Your task to perform on an android device: Open Google Image 0: 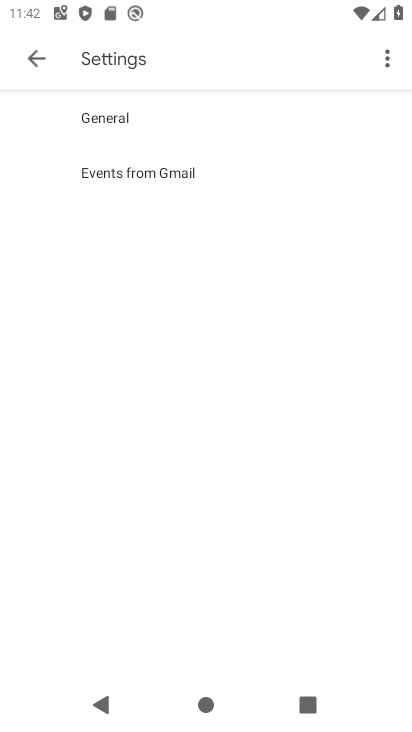
Step 0: press home button
Your task to perform on an android device: Open Google Image 1: 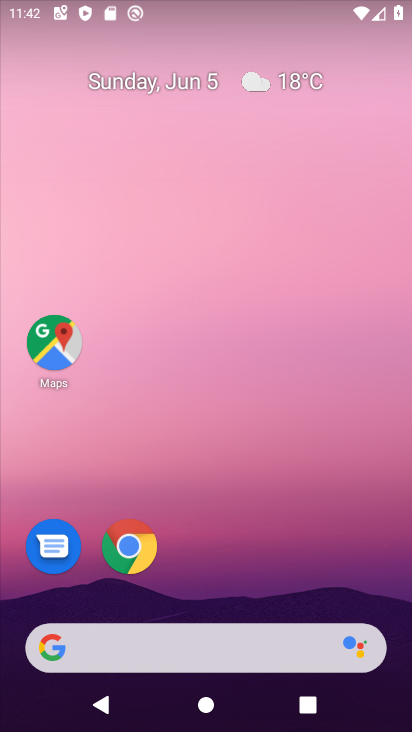
Step 1: drag from (209, 399) to (209, 305)
Your task to perform on an android device: Open Google Image 2: 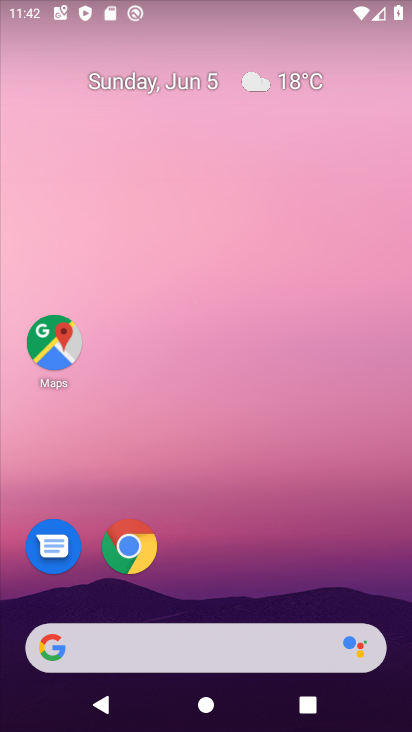
Step 2: drag from (218, 502) to (218, 205)
Your task to perform on an android device: Open Google Image 3: 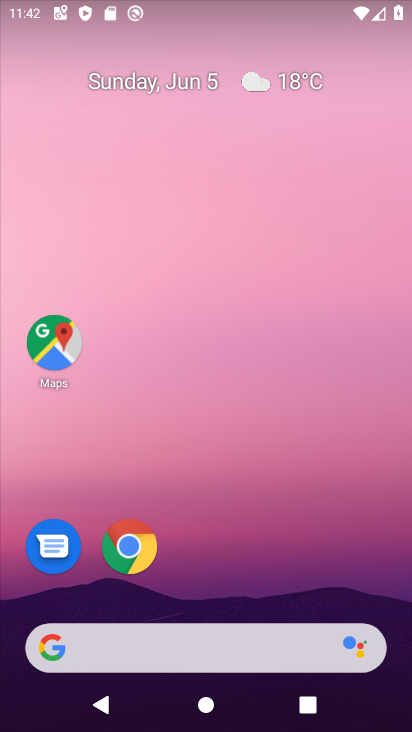
Step 3: drag from (210, 539) to (229, 237)
Your task to perform on an android device: Open Google Image 4: 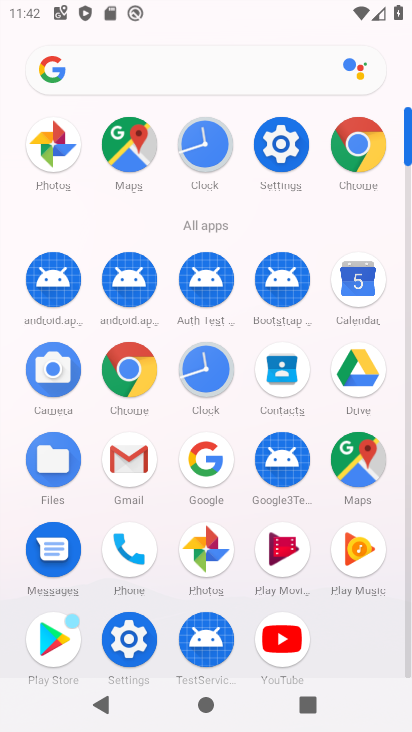
Step 4: click (197, 448)
Your task to perform on an android device: Open Google Image 5: 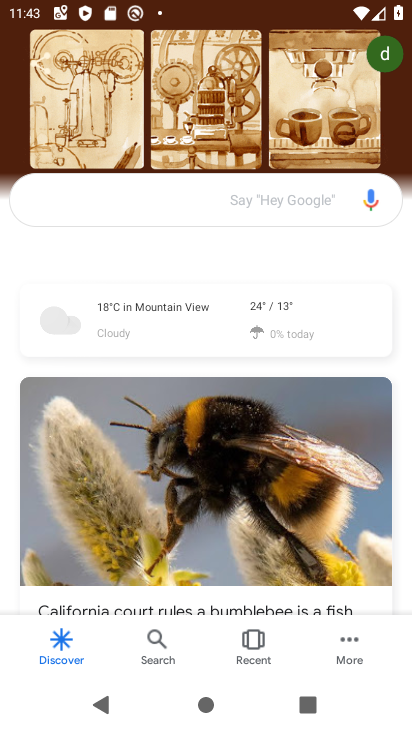
Step 5: task complete